Your task to perform on an android device: Set the phone to "Do not disturb". Image 0: 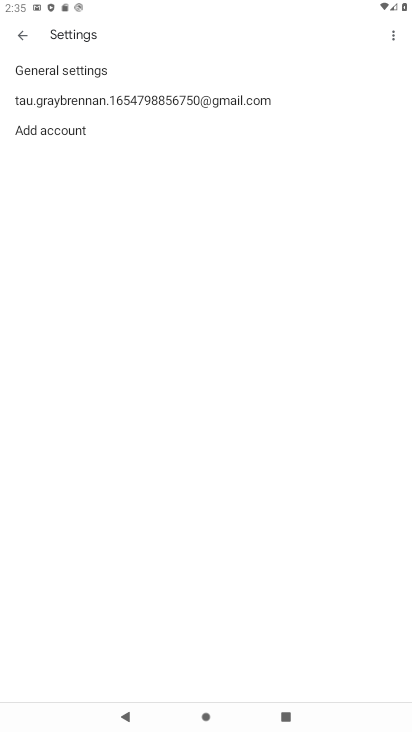
Step 0: press home button
Your task to perform on an android device: Set the phone to "Do not disturb". Image 1: 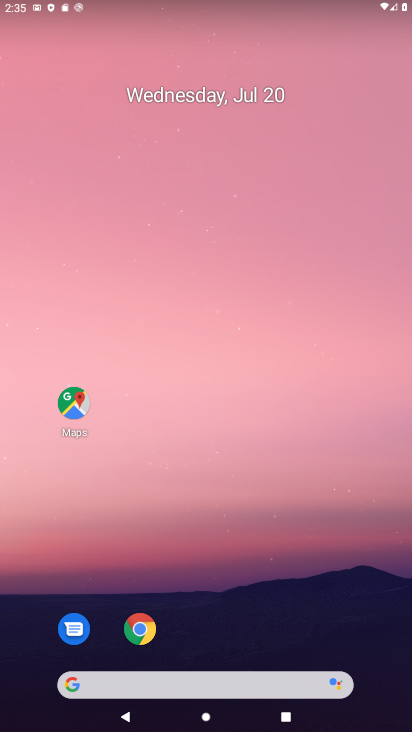
Step 1: drag from (403, 0) to (344, 519)
Your task to perform on an android device: Set the phone to "Do not disturb". Image 2: 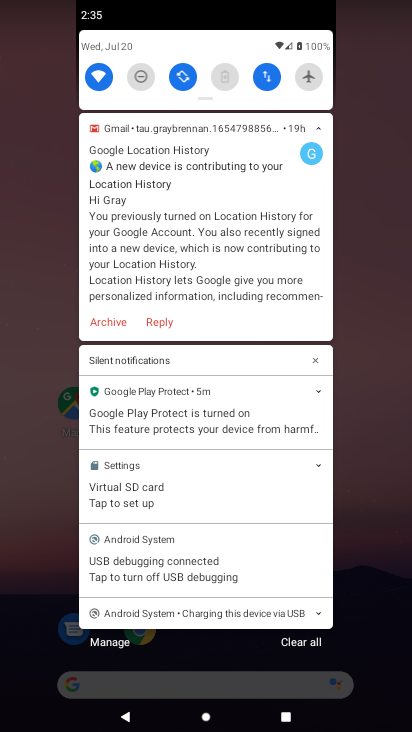
Step 2: click (139, 80)
Your task to perform on an android device: Set the phone to "Do not disturb". Image 3: 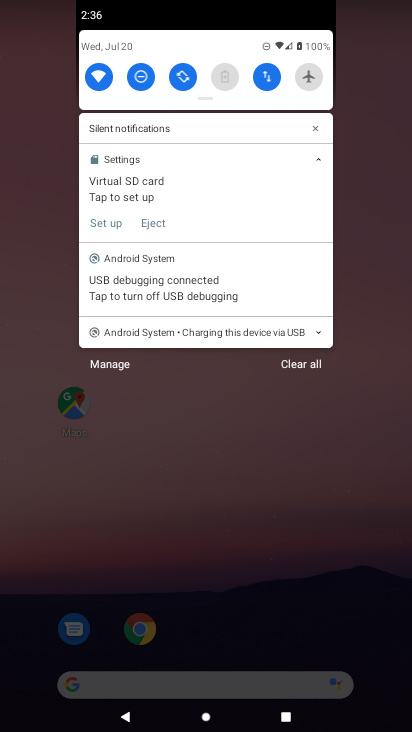
Step 3: task complete